Your task to perform on an android device: Open battery settings Image 0: 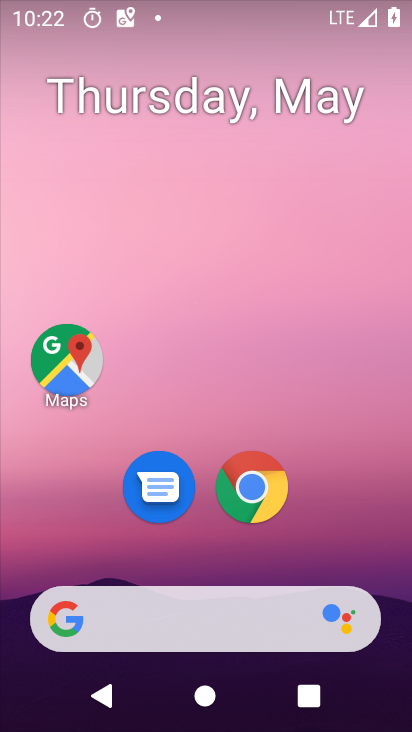
Step 0: drag from (208, 548) to (325, 11)
Your task to perform on an android device: Open battery settings Image 1: 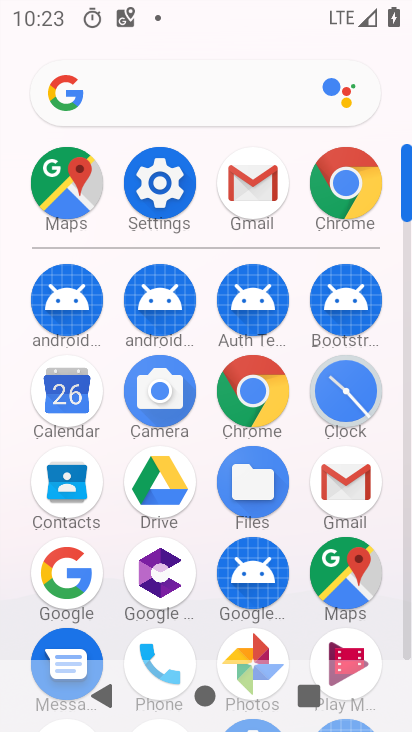
Step 1: click (157, 209)
Your task to perform on an android device: Open battery settings Image 2: 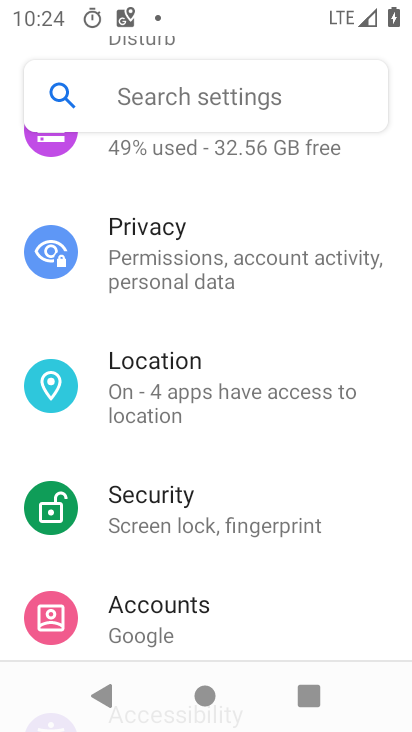
Step 2: drag from (203, 305) to (172, 636)
Your task to perform on an android device: Open battery settings Image 3: 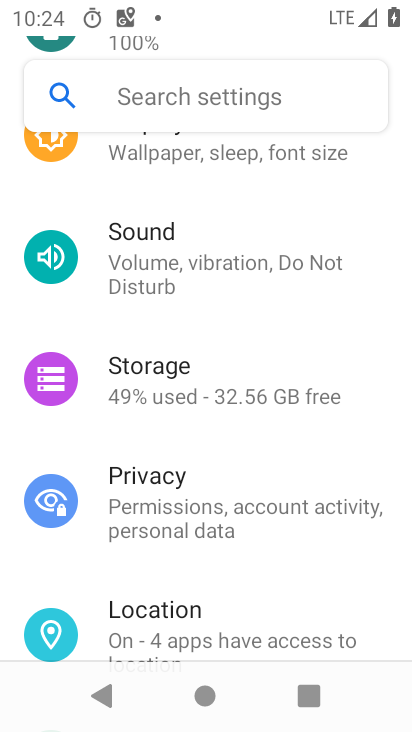
Step 3: drag from (183, 294) to (98, 721)
Your task to perform on an android device: Open battery settings Image 4: 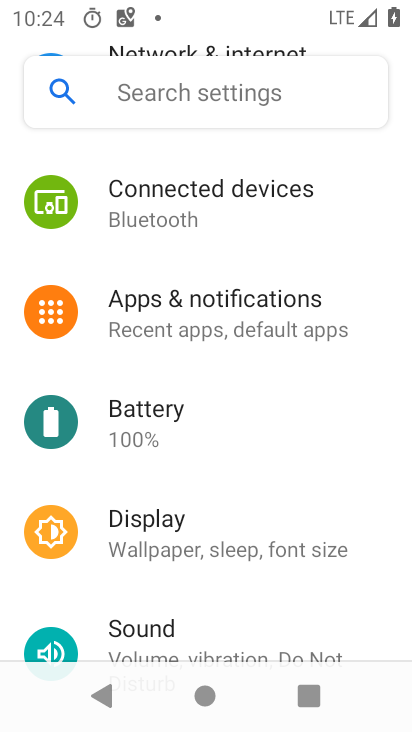
Step 4: click (190, 411)
Your task to perform on an android device: Open battery settings Image 5: 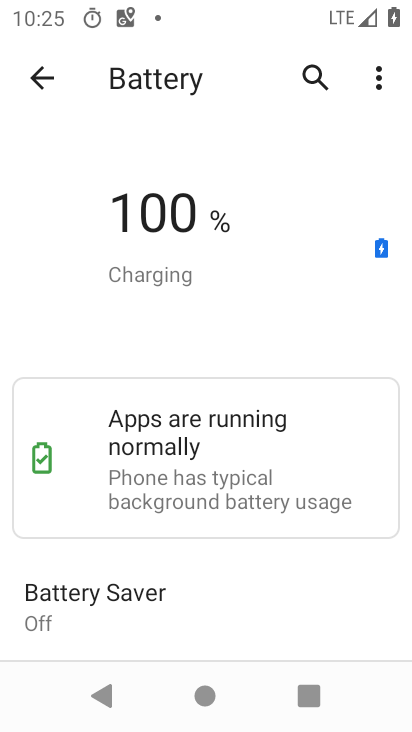
Step 5: task complete